Your task to perform on an android device: Open calendar and show me the second week of next month Image 0: 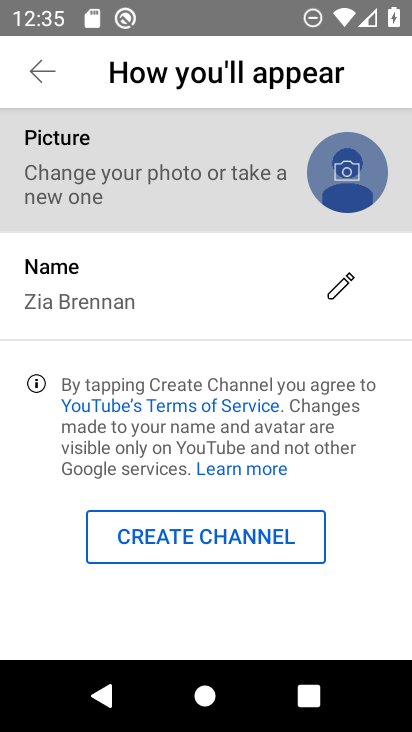
Step 0: press back button
Your task to perform on an android device: Open calendar and show me the second week of next month Image 1: 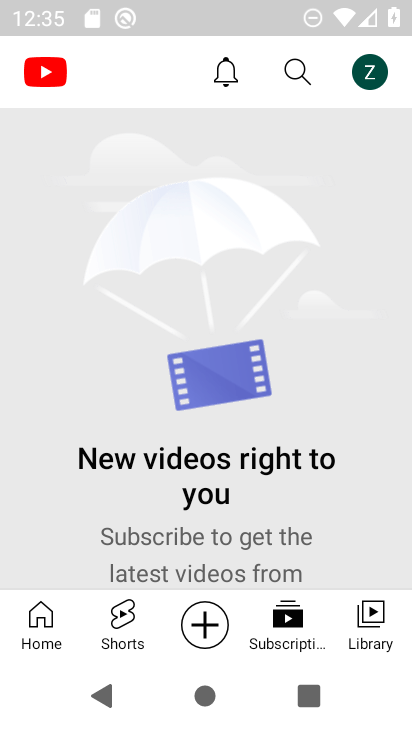
Step 1: press back button
Your task to perform on an android device: Open calendar and show me the second week of next month Image 2: 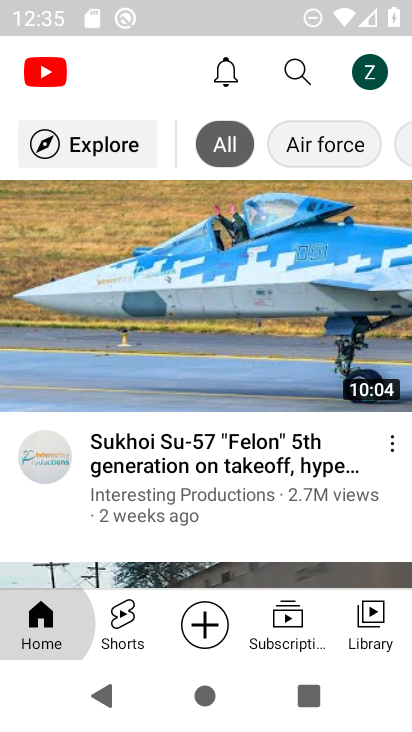
Step 2: press back button
Your task to perform on an android device: Open calendar and show me the second week of next month Image 3: 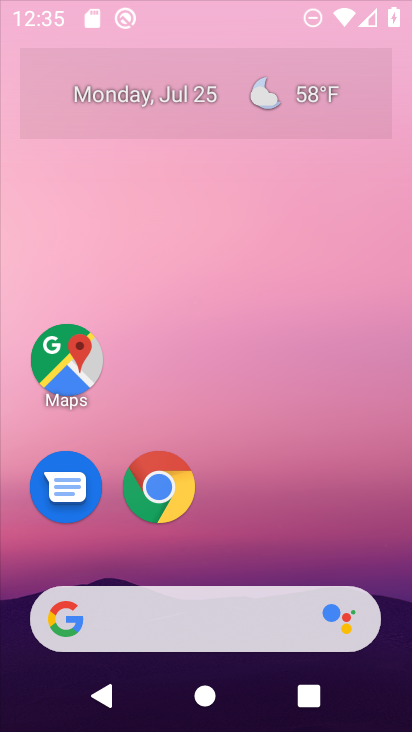
Step 3: press home button
Your task to perform on an android device: Open calendar and show me the second week of next month Image 4: 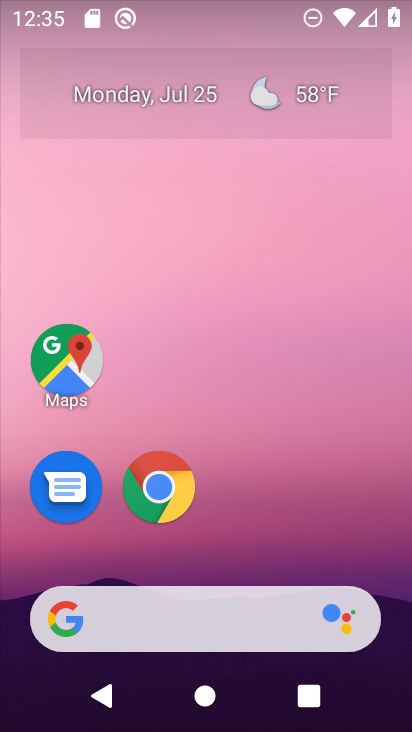
Step 4: drag from (197, 480) to (91, 13)
Your task to perform on an android device: Open calendar and show me the second week of next month Image 5: 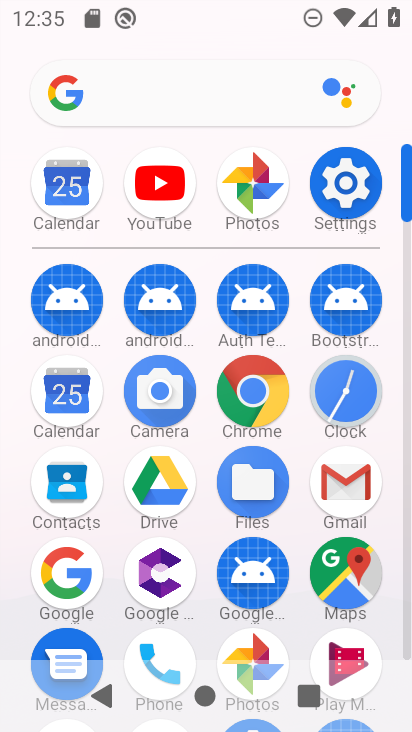
Step 5: click (72, 404)
Your task to perform on an android device: Open calendar and show me the second week of next month Image 6: 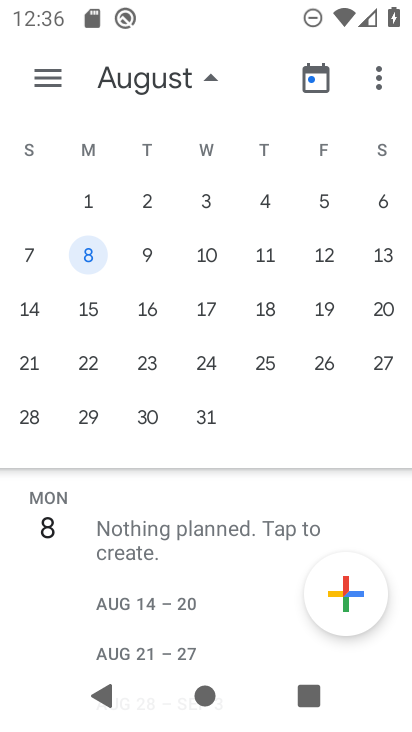
Step 6: click (70, 237)
Your task to perform on an android device: Open calendar and show me the second week of next month Image 7: 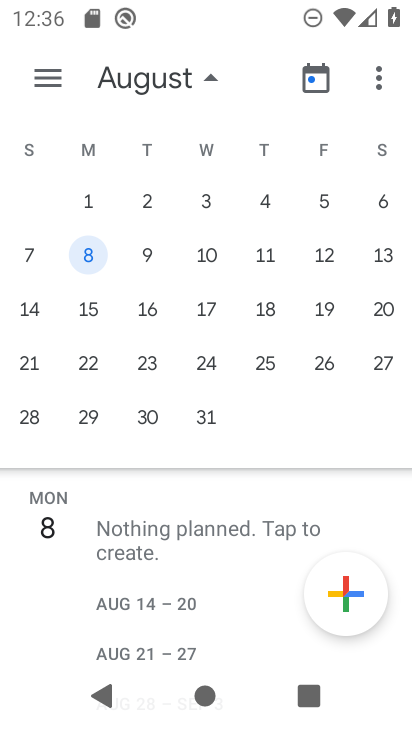
Step 7: task complete